Your task to perform on an android device: turn on improve location accuracy Image 0: 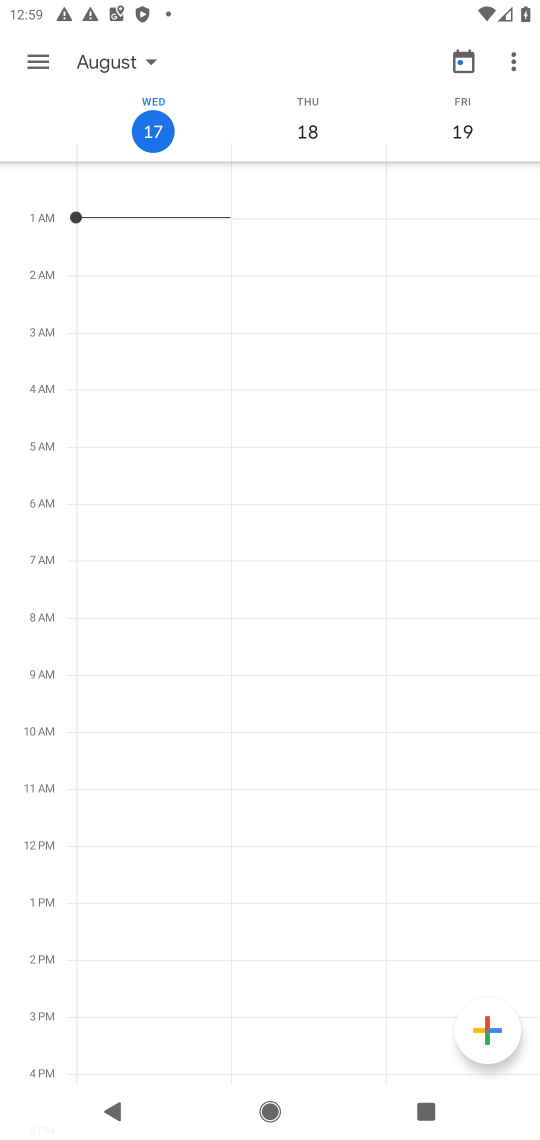
Step 0: press home button
Your task to perform on an android device: turn on improve location accuracy Image 1: 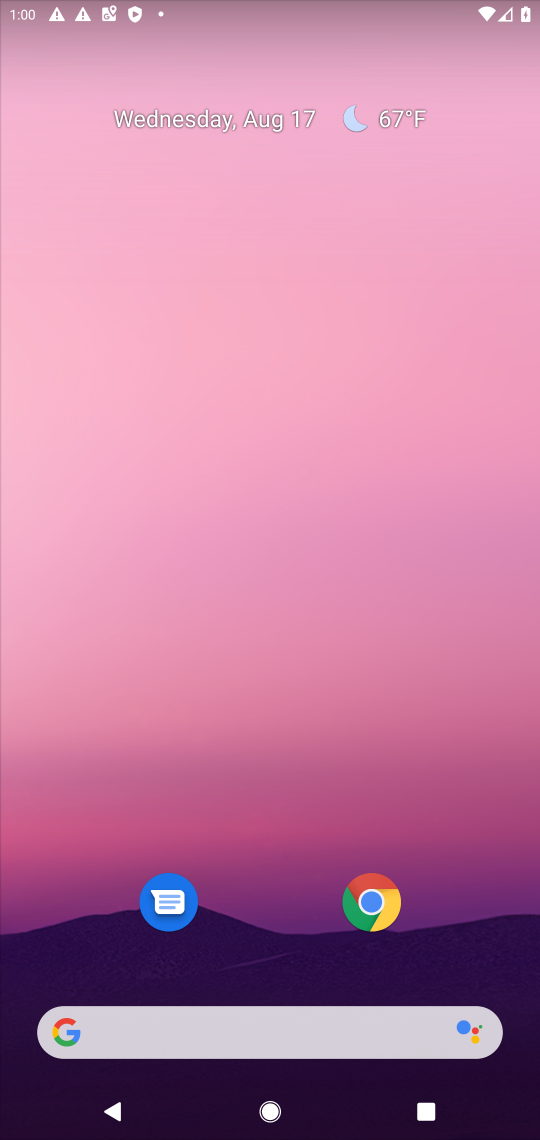
Step 1: drag from (244, 962) to (37, 23)
Your task to perform on an android device: turn on improve location accuracy Image 2: 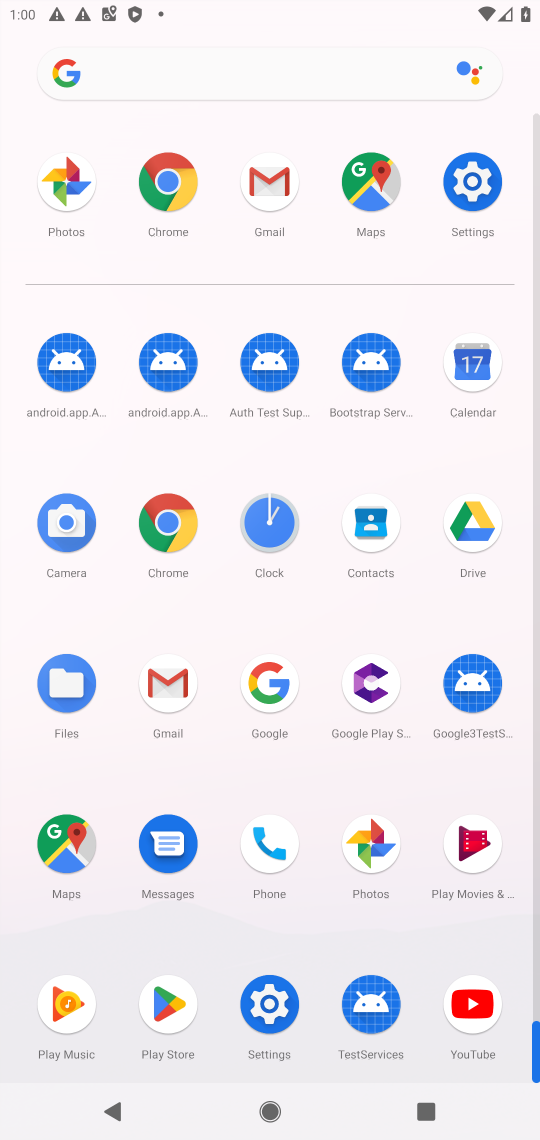
Step 2: click (278, 974)
Your task to perform on an android device: turn on improve location accuracy Image 3: 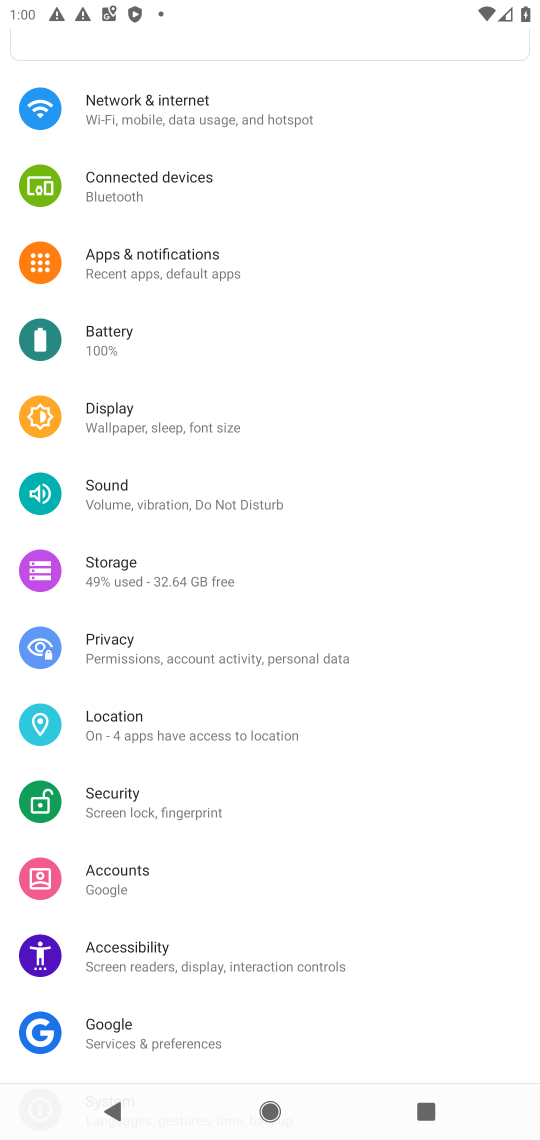
Step 3: click (149, 730)
Your task to perform on an android device: turn on improve location accuracy Image 4: 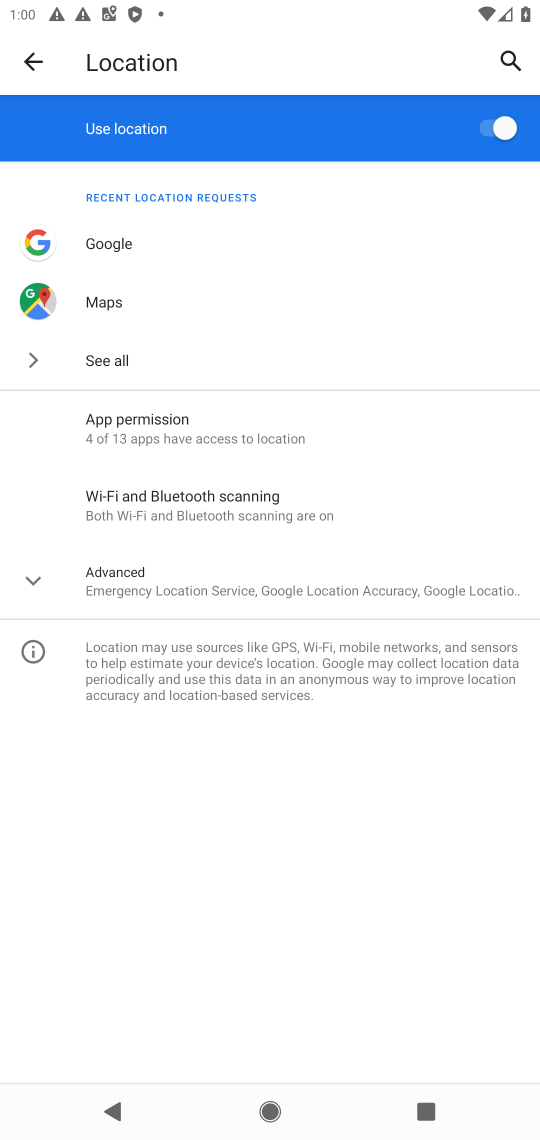
Step 4: click (141, 577)
Your task to perform on an android device: turn on improve location accuracy Image 5: 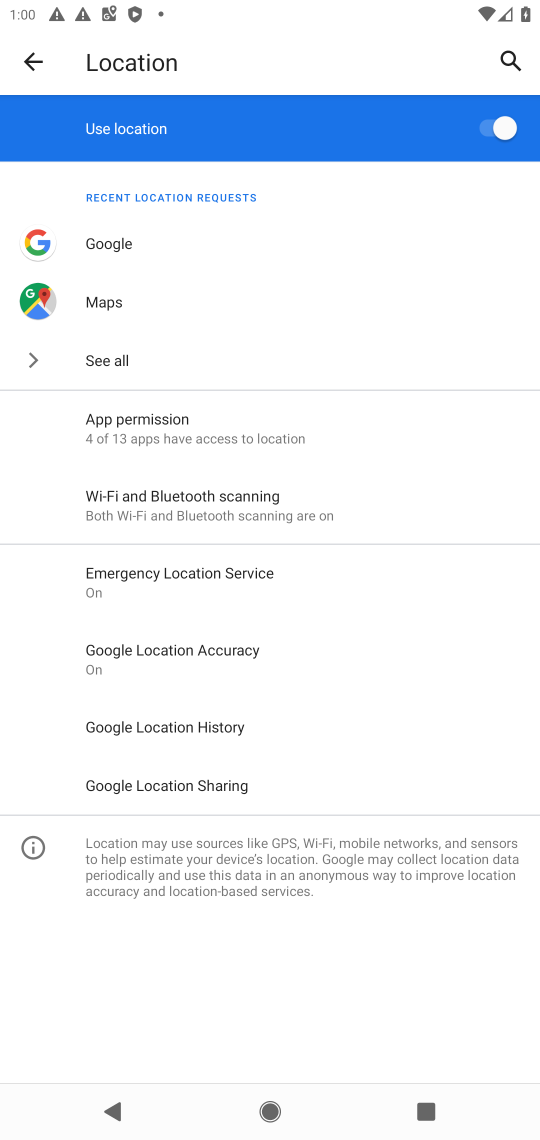
Step 5: click (208, 651)
Your task to perform on an android device: turn on improve location accuracy Image 6: 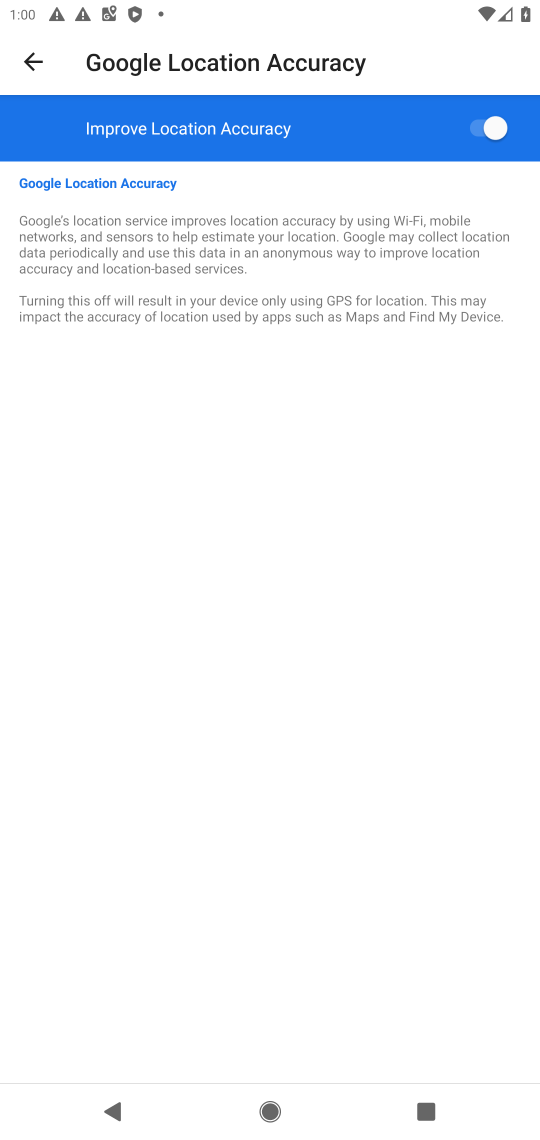
Step 6: task complete